Your task to perform on an android device: When is my next appointment? Image 0: 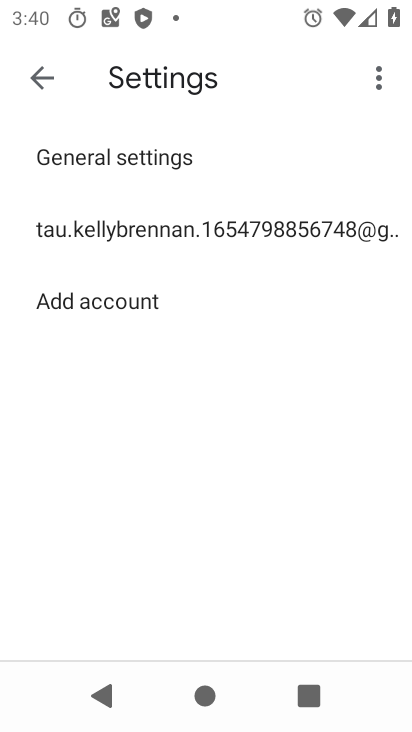
Step 0: press home button
Your task to perform on an android device: When is my next appointment? Image 1: 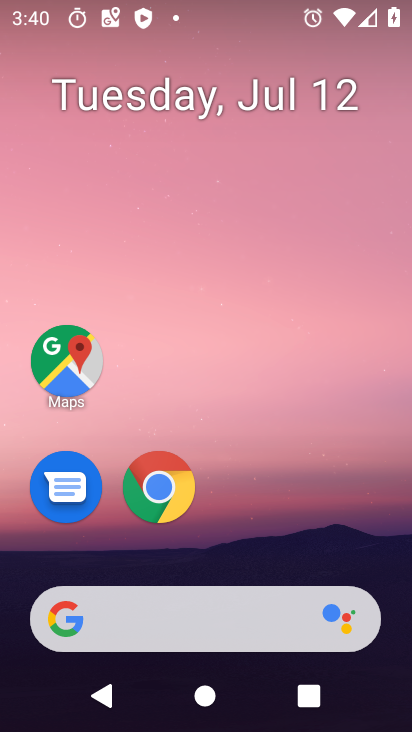
Step 1: drag from (141, 592) to (159, 285)
Your task to perform on an android device: When is my next appointment? Image 2: 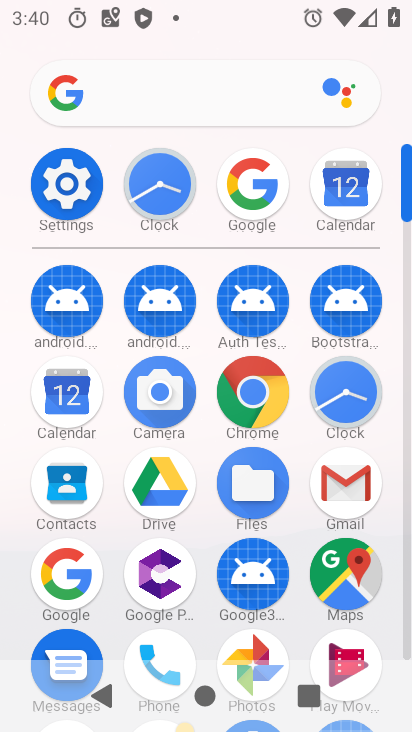
Step 2: click (329, 183)
Your task to perform on an android device: When is my next appointment? Image 3: 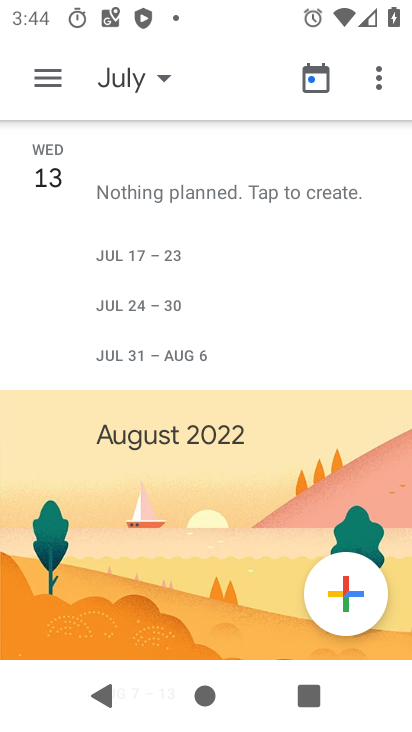
Step 3: task complete